Your task to perform on an android device: Go to Maps Image 0: 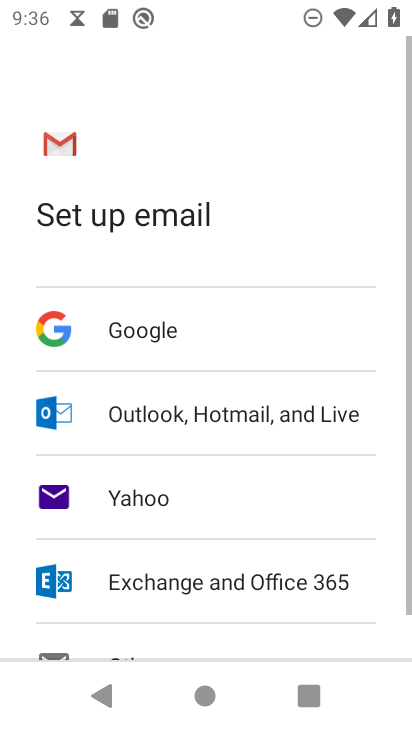
Step 0: press home button
Your task to perform on an android device: Go to Maps Image 1: 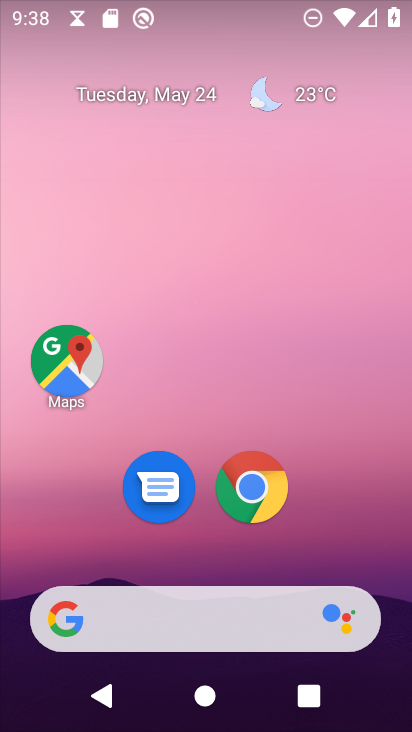
Step 1: click (82, 344)
Your task to perform on an android device: Go to Maps Image 2: 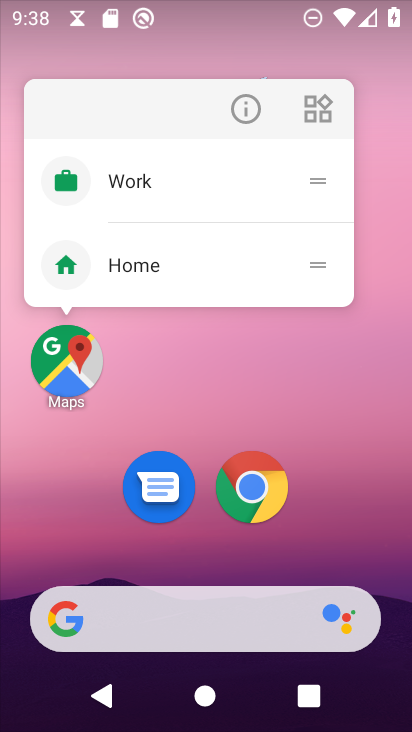
Step 2: click (60, 364)
Your task to perform on an android device: Go to Maps Image 3: 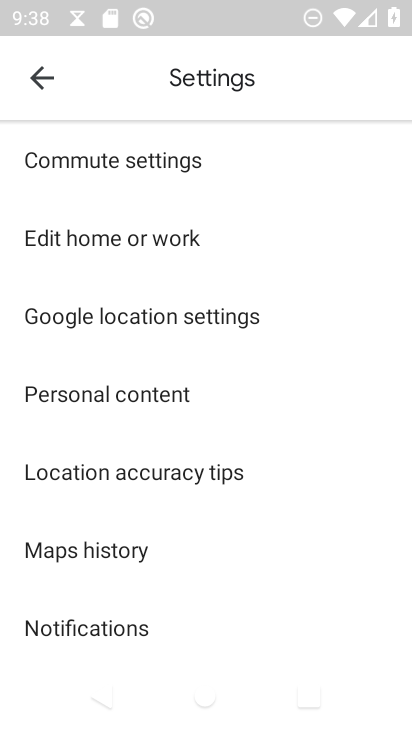
Step 3: task complete